Your task to perform on an android device: Is it going to rain this weekend? Image 0: 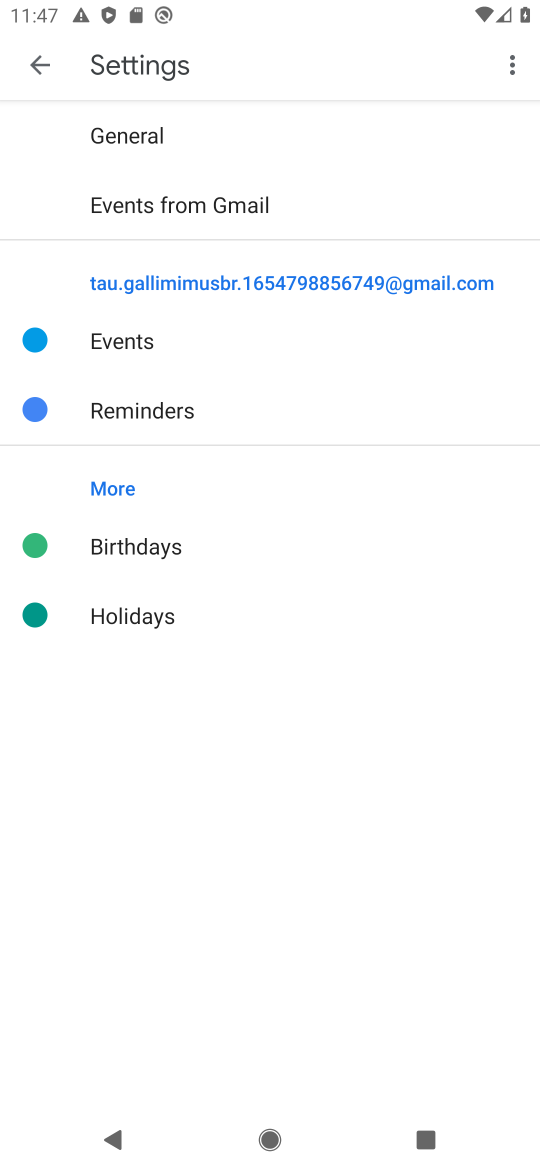
Step 0: press home button
Your task to perform on an android device: Is it going to rain this weekend? Image 1: 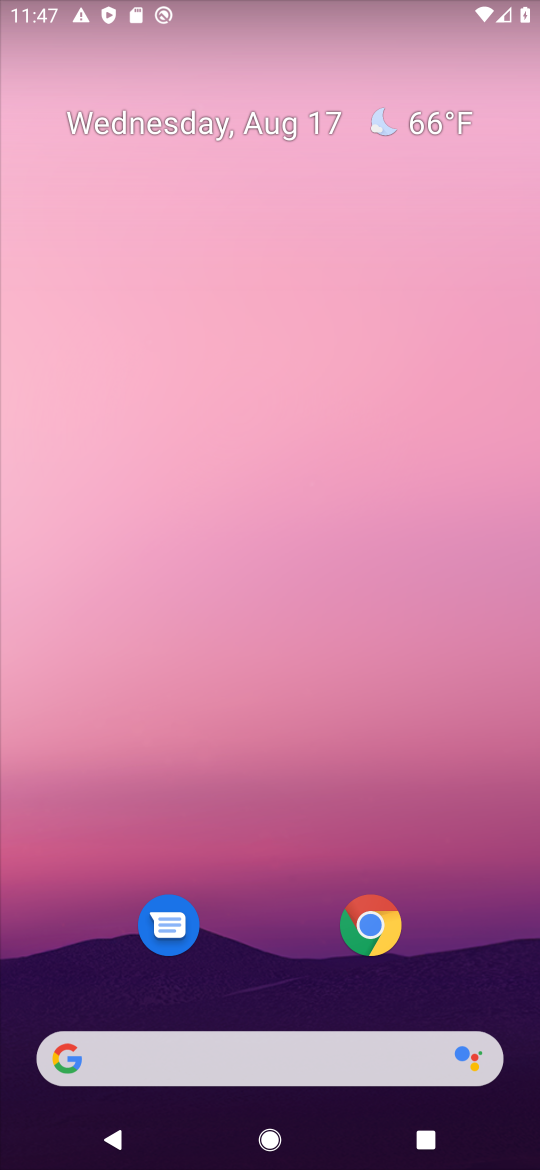
Step 1: click (443, 120)
Your task to perform on an android device: Is it going to rain this weekend? Image 2: 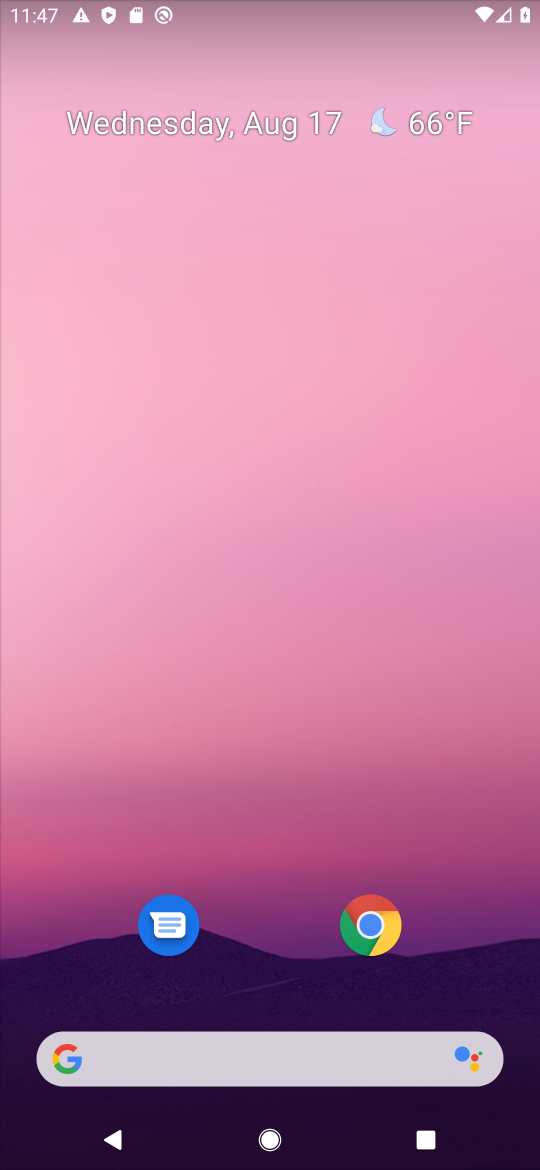
Step 2: click (439, 131)
Your task to perform on an android device: Is it going to rain this weekend? Image 3: 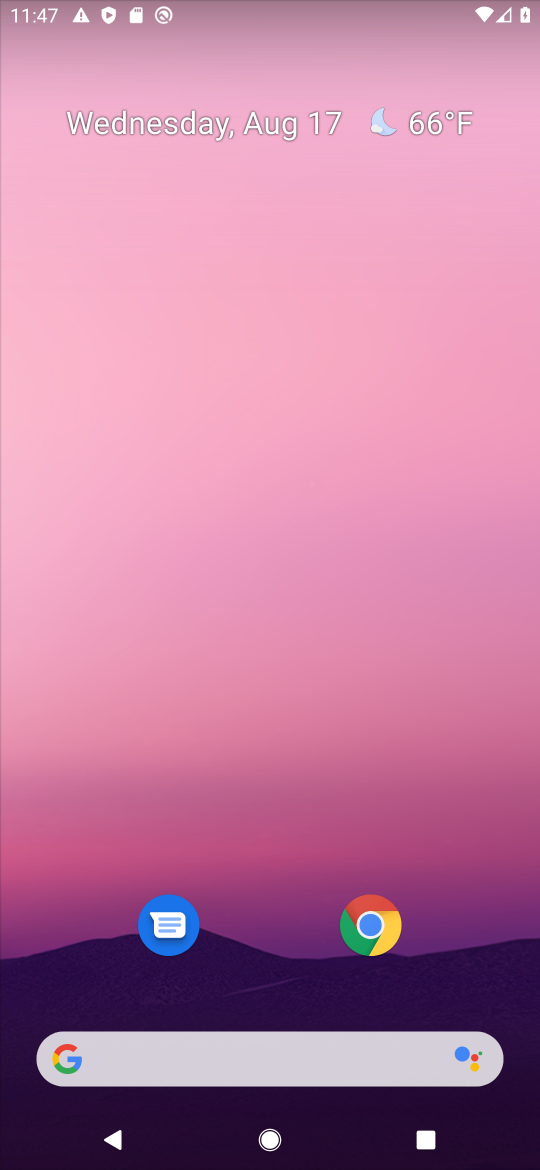
Step 3: click (439, 127)
Your task to perform on an android device: Is it going to rain this weekend? Image 4: 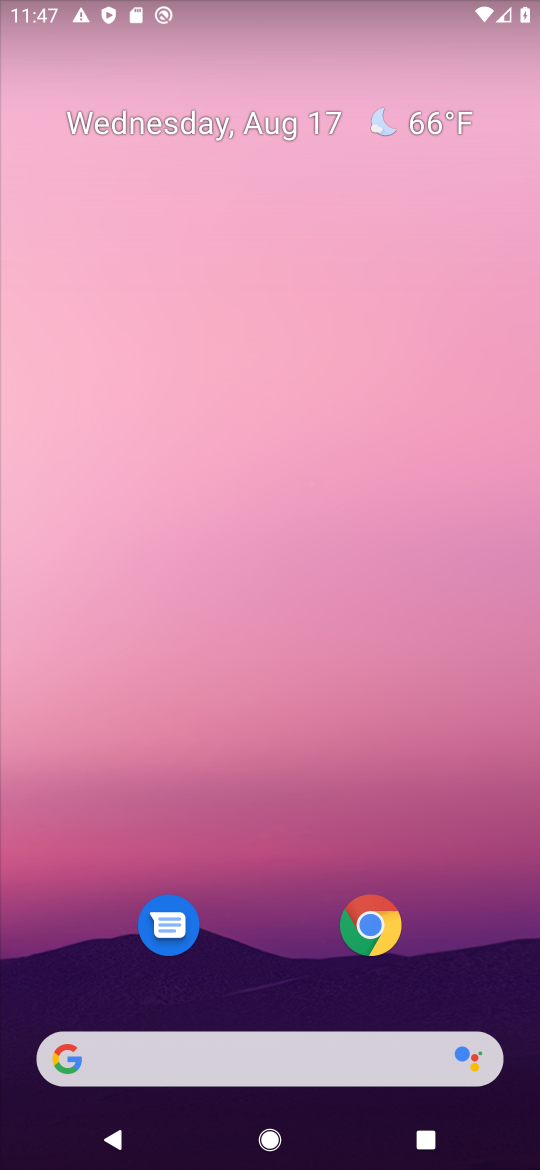
Step 4: click (416, 131)
Your task to perform on an android device: Is it going to rain this weekend? Image 5: 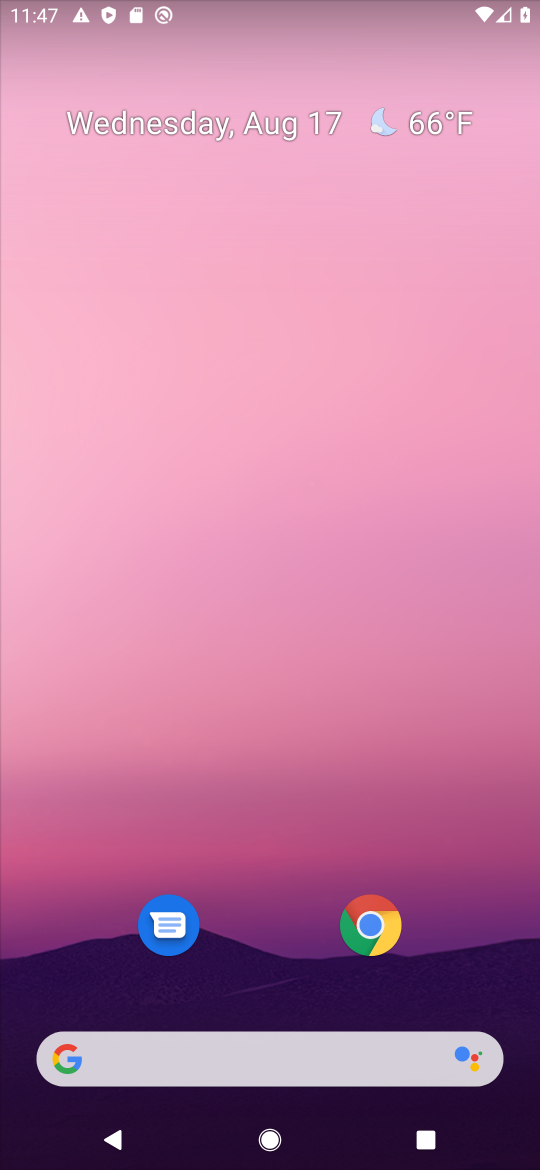
Step 5: click (420, 131)
Your task to perform on an android device: Is it going to rain this weekend? Image 6: 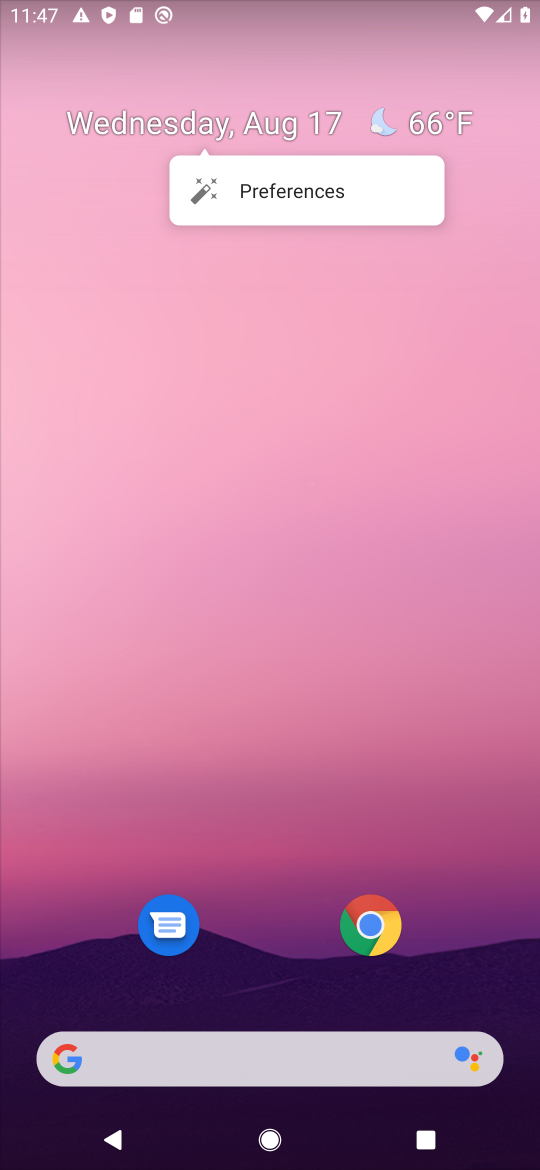
Step 6: click (409, 119)
Your task to perform on an android device: Is it going to rain this weekend? Image 7: 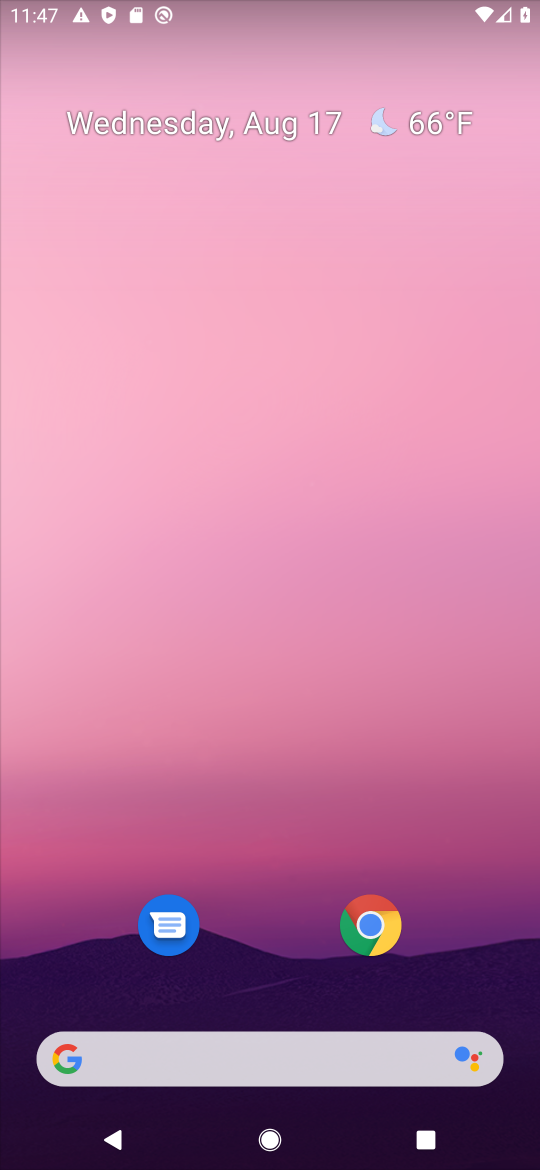
Step 7: click (116, 572)
Your task to perform on an android device: Is it going to rain this weekend? Image 8: 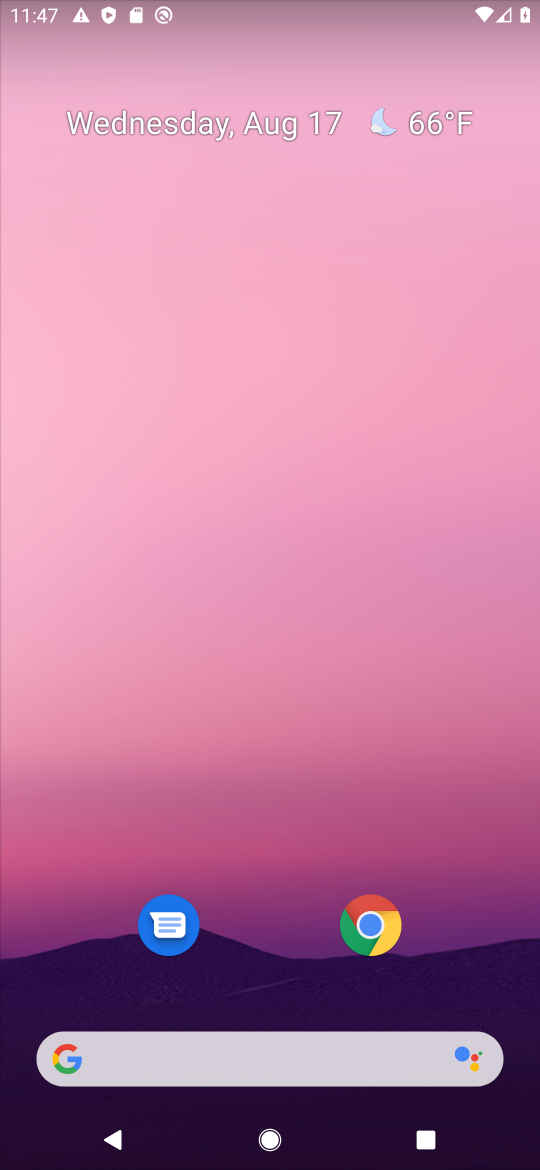
Step 8: click (431, 137)
Your task to perform on an android device: Is it going to rain this weekend? Image 9: 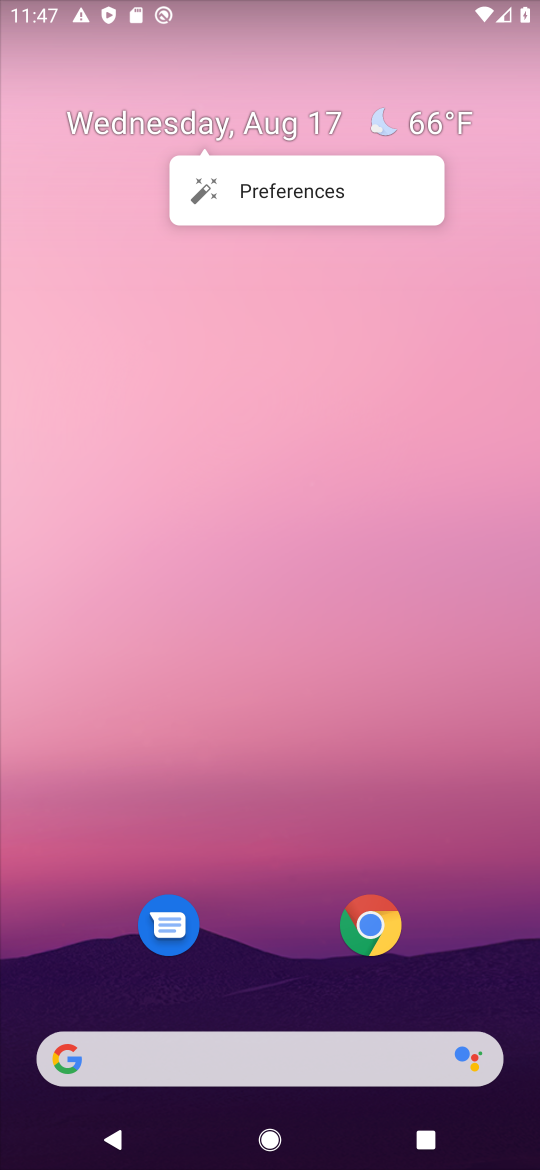
Step 9: click (414, 134)
Your task to perform on an android device: Is it going to rain this weekend? Image 10: 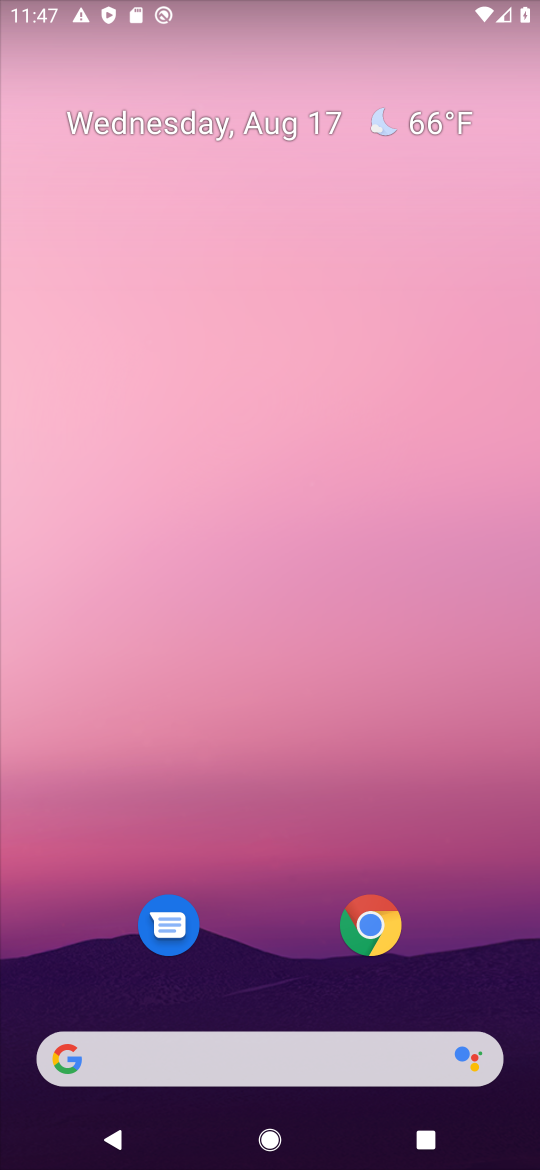
Step 10: click (435, 120)
Your task to perform on an android device: Is it going to rain this weekend? Image 11: 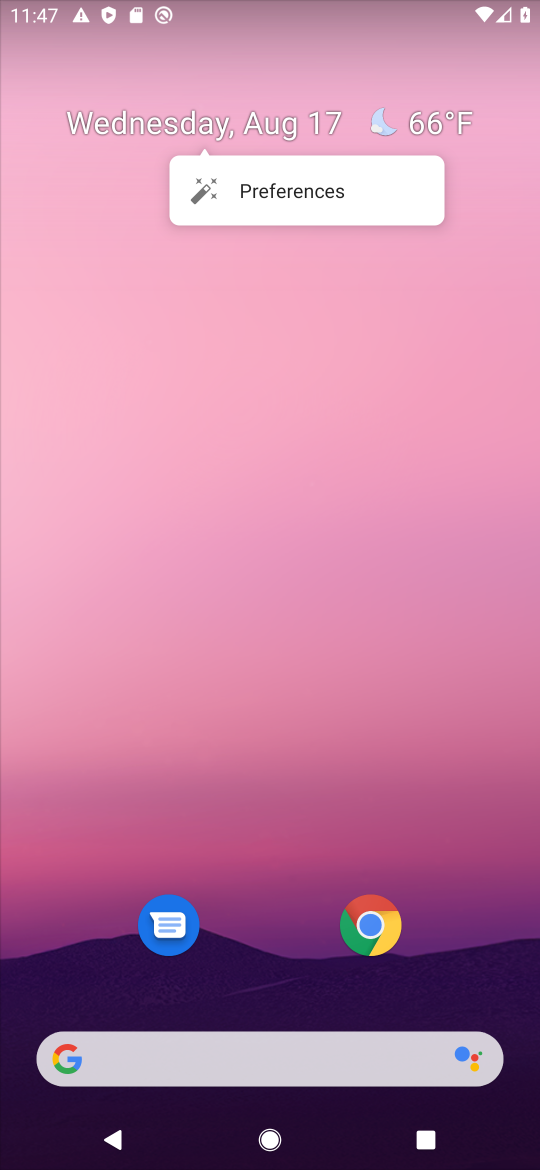
Step 11: click (446, 120)
Your task to perform on an android device: Is it going to rain this weekend? Image 12: 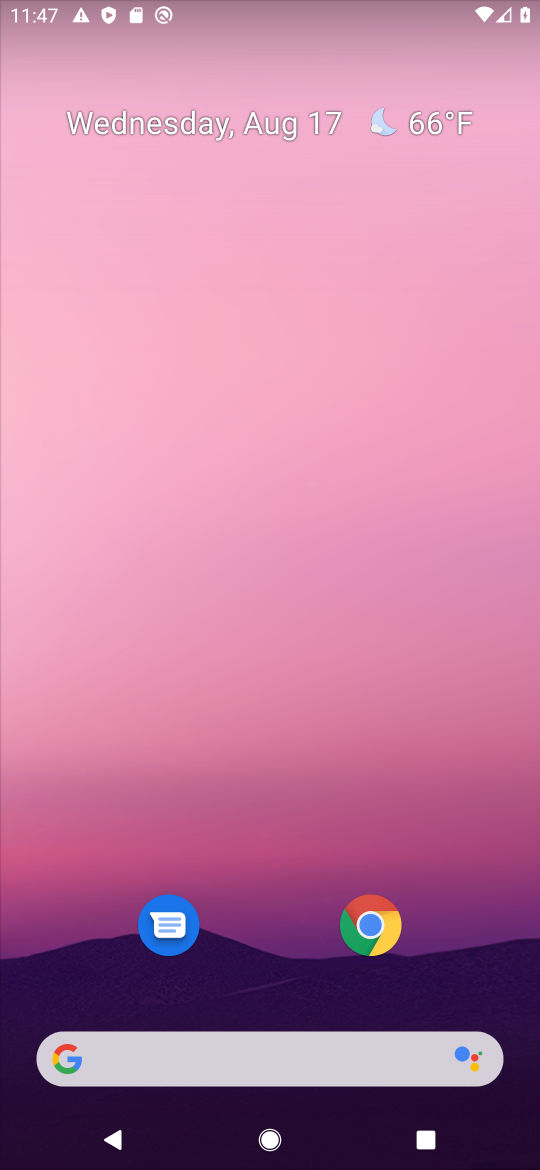
Step 12: click (471, 124)
Your task to perform on an android device: Is it going to rain this weekend? Image 13: 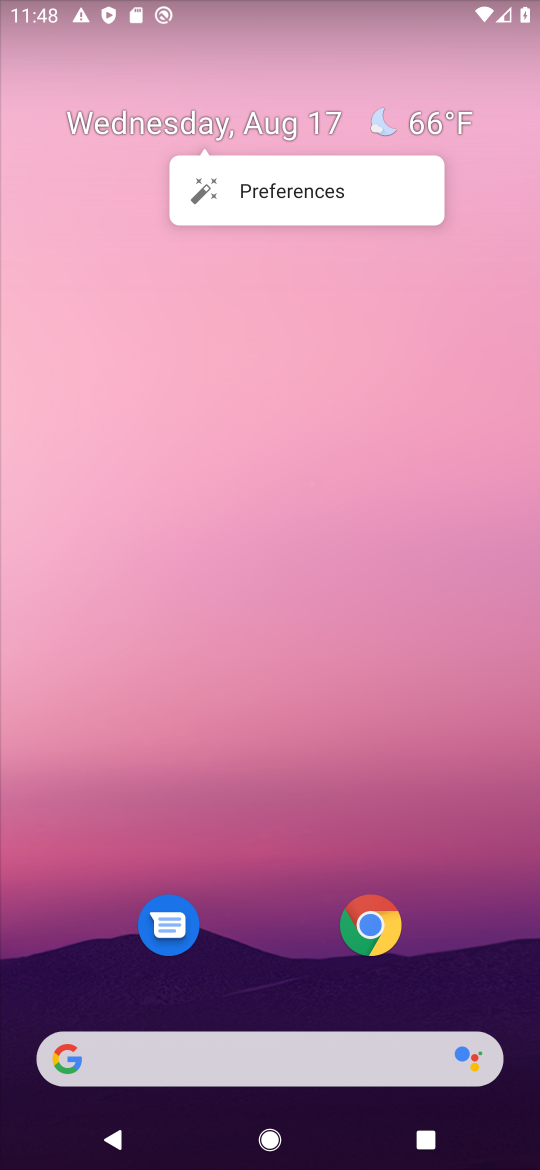
Step 13: click (471, 124)
Your task to perform on an android device: Is it going to rain this weekend? Image 14: 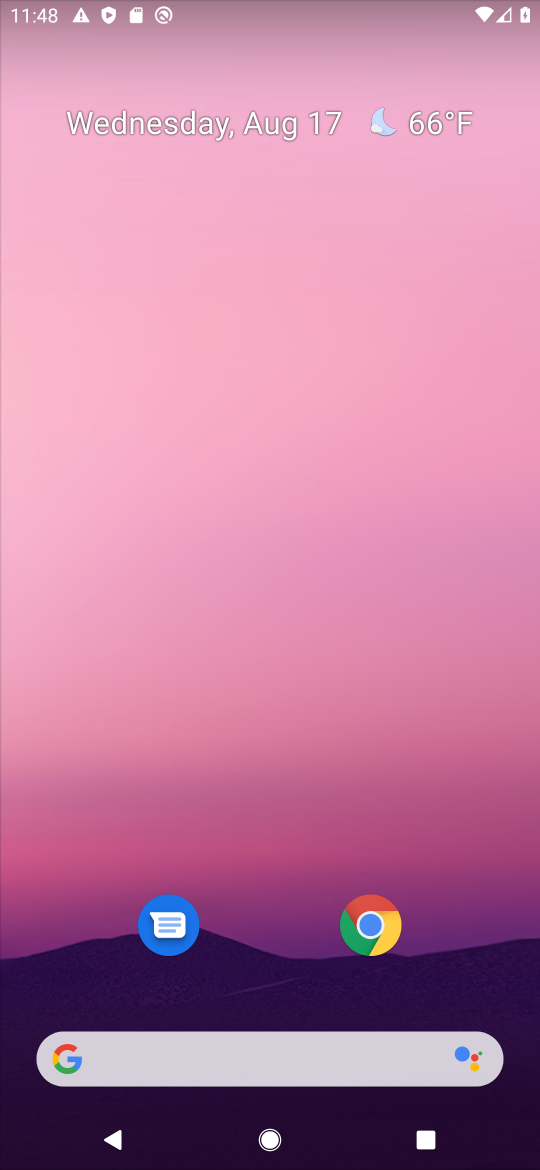
Step 14: click (471, 124)
Your task to perform on an android device: Is it going to rain this weekend? Image 15: 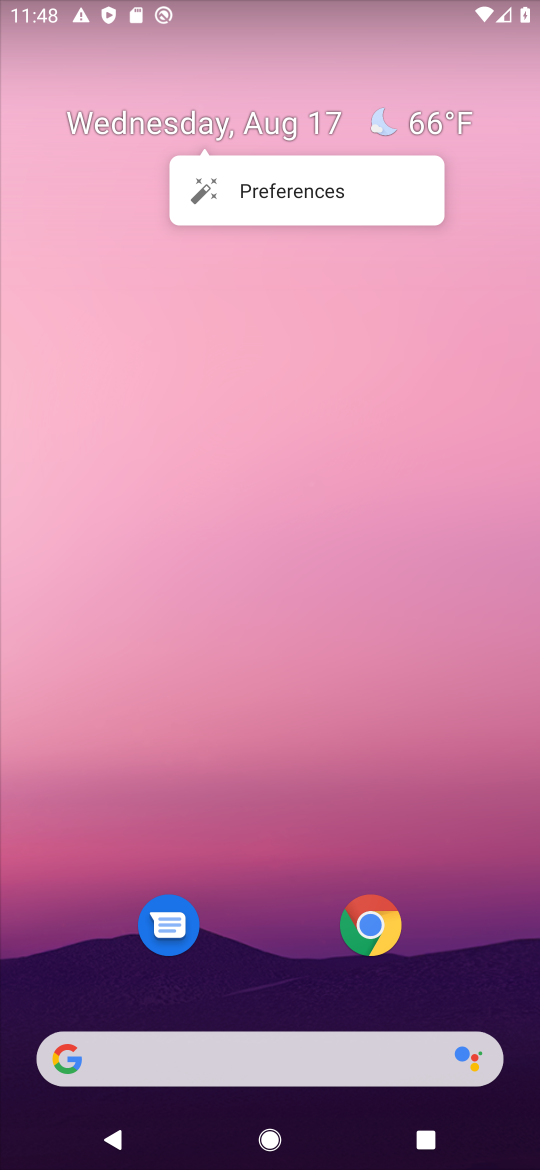
Step 15: click (455, 116)
Your task to perform on an android device: Is it going to rain this weekend? Image 16: 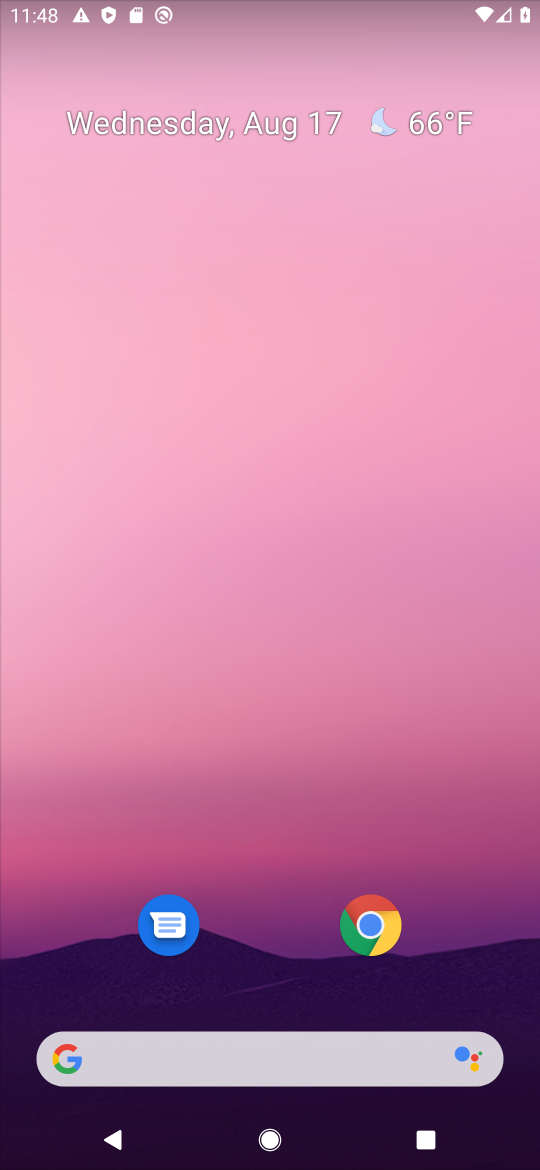
Step 16: click (455, 116)
Your task to perform on an android device: Is it going to rain this weekend? Image 17: 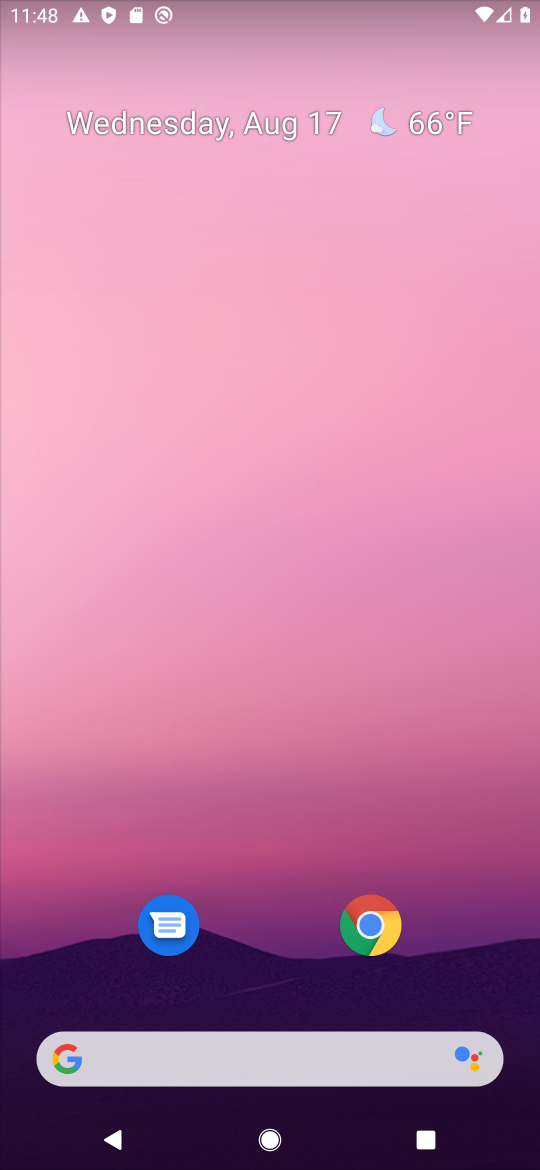
Step 17: click (434, 490)
Your task to perform on an android device: Is it going to rain this weekend? Image 18: 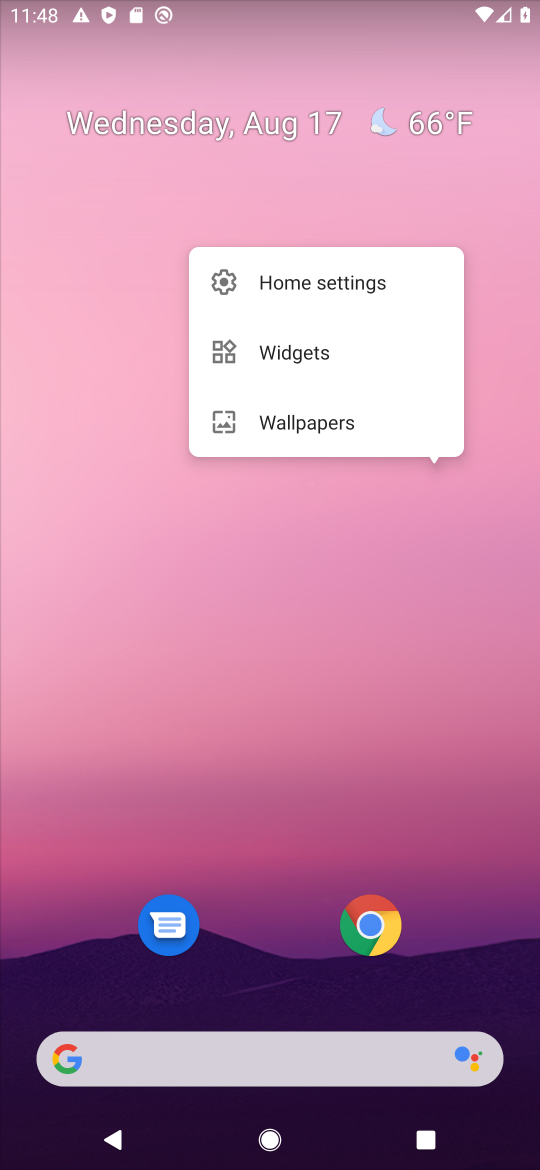
Step 18: click (414, 133)
Your task to perform on an android device: Is it going to rain this weekend? Image 19: 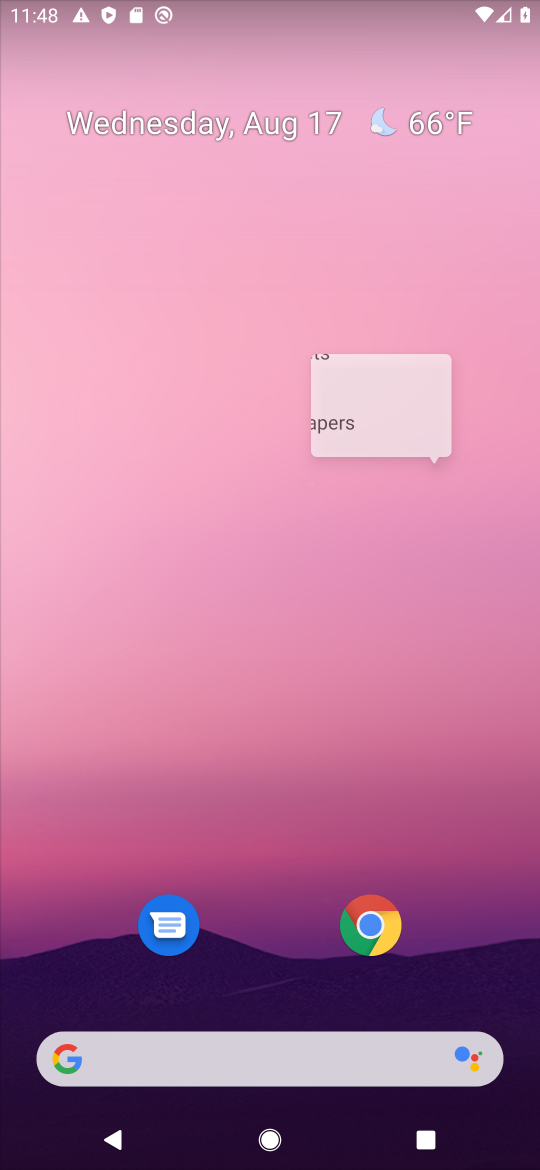
Step 19: click (414, 133)
Your task to perform on an android device: Is it going to rain this weekend? Image 20: 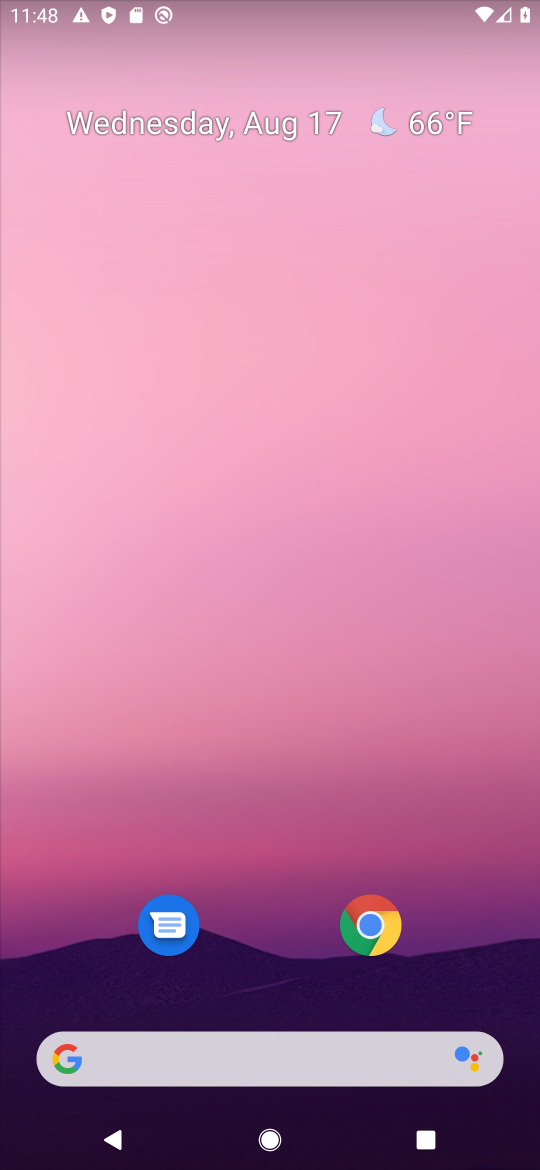
Step 20: click (458, 105)
Your task to perform on an android device: Is it going to rain this weekend? Image 21: 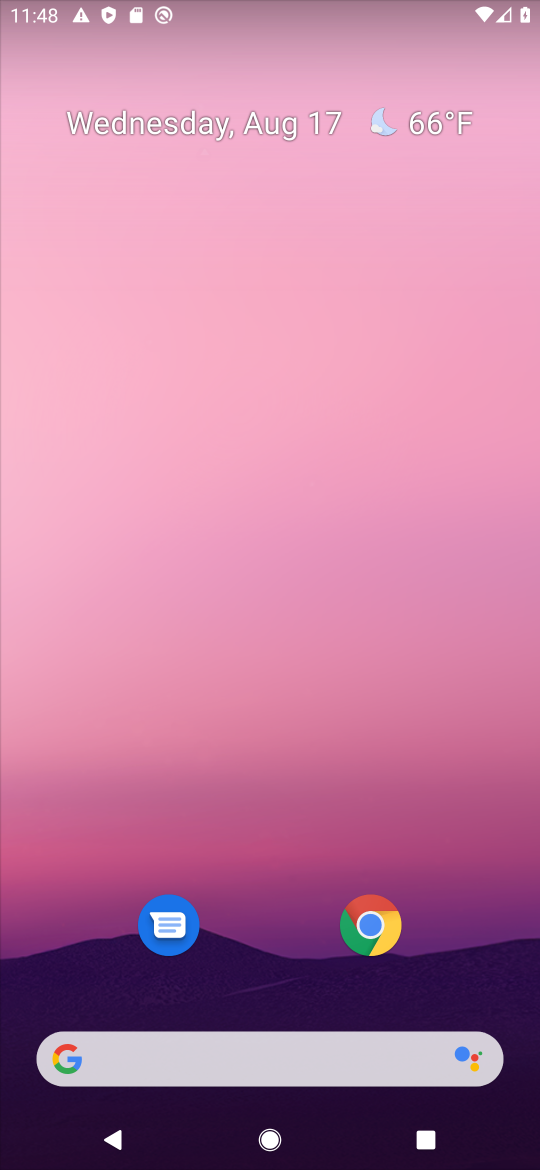
Step 21: click (451, 113)
Your task to perform on an android device: Is it going to rain this weekend? Image 22: 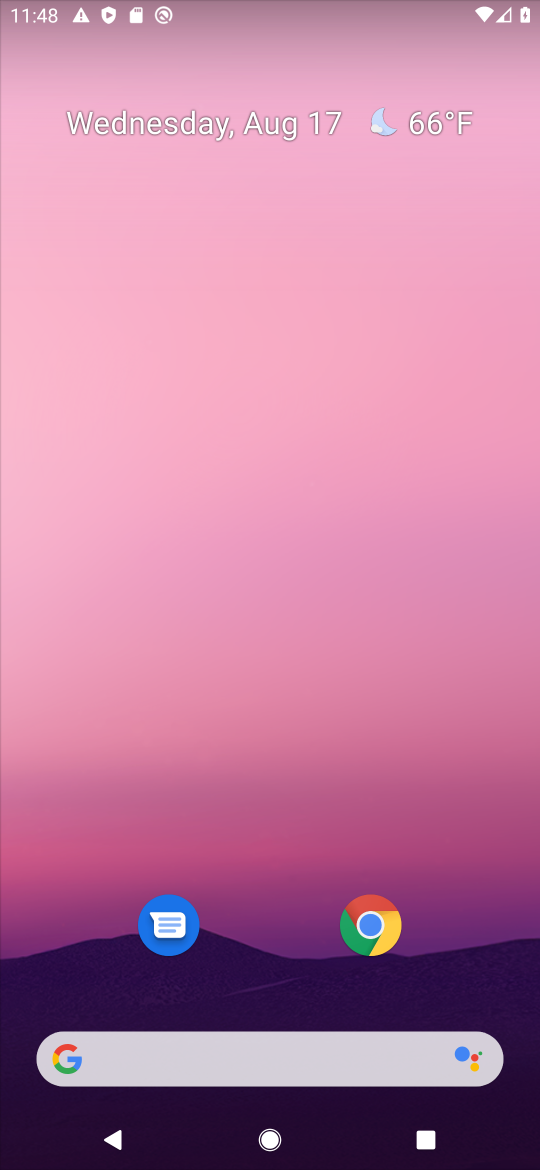
Step 22: click (388, 937)
Your task to perform on an android device: Is it going to rain this weekend? Image 23: 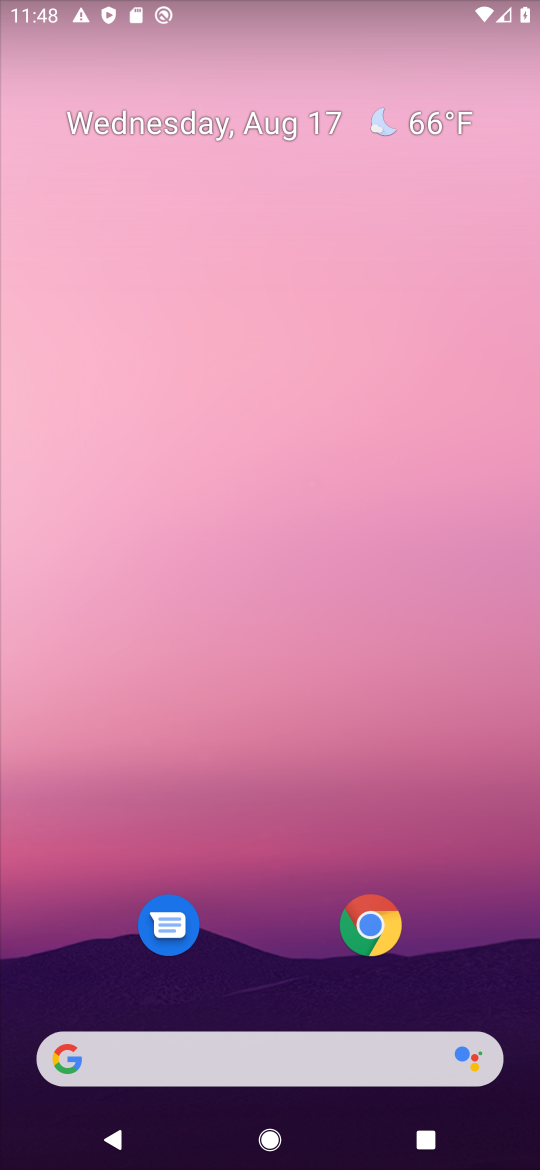
Step 23: click (375, 909)
Your task to perform on an android device: Is it going to rain this weekend? Image 24: 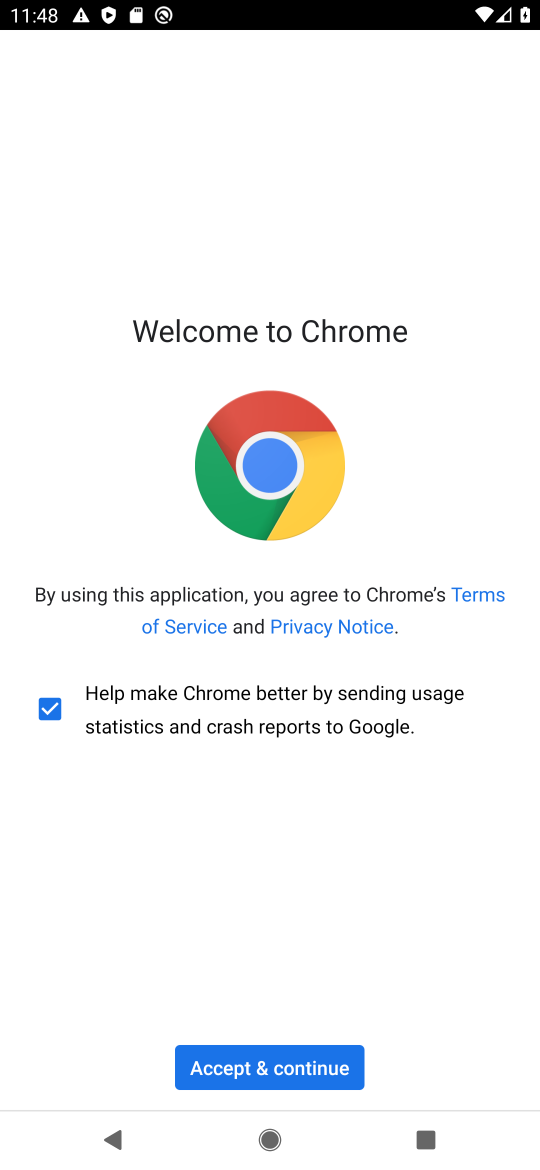
Step 24: click (278, 1072)
Your task to perform on an android device: Is it going to rain this weekend? Image 25: 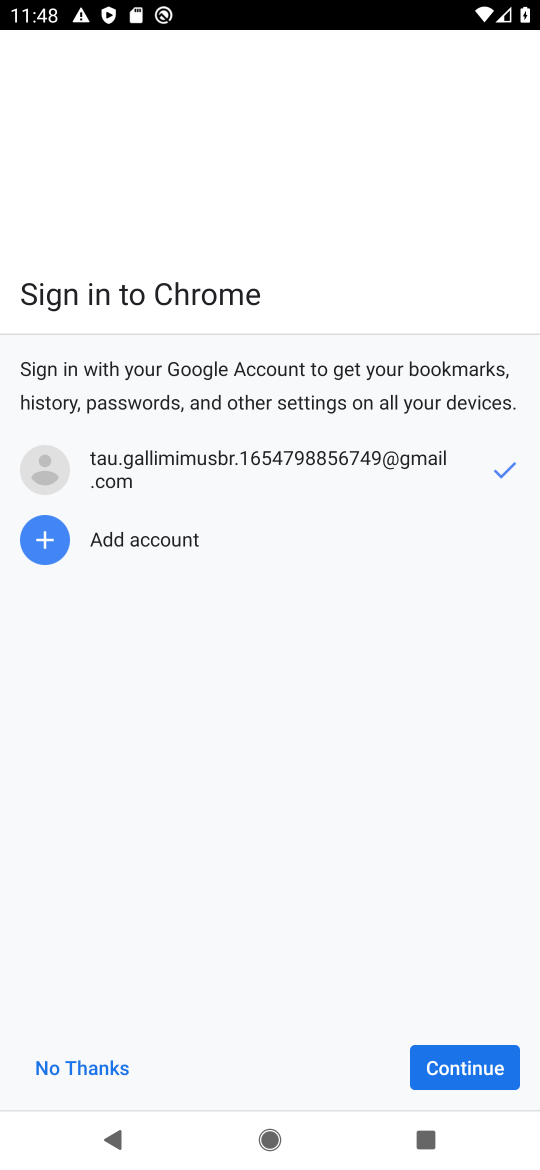
Step 25: click (477, 1066)
Your task to perform on an android device: Is it going to rain this weekend? Image 26: 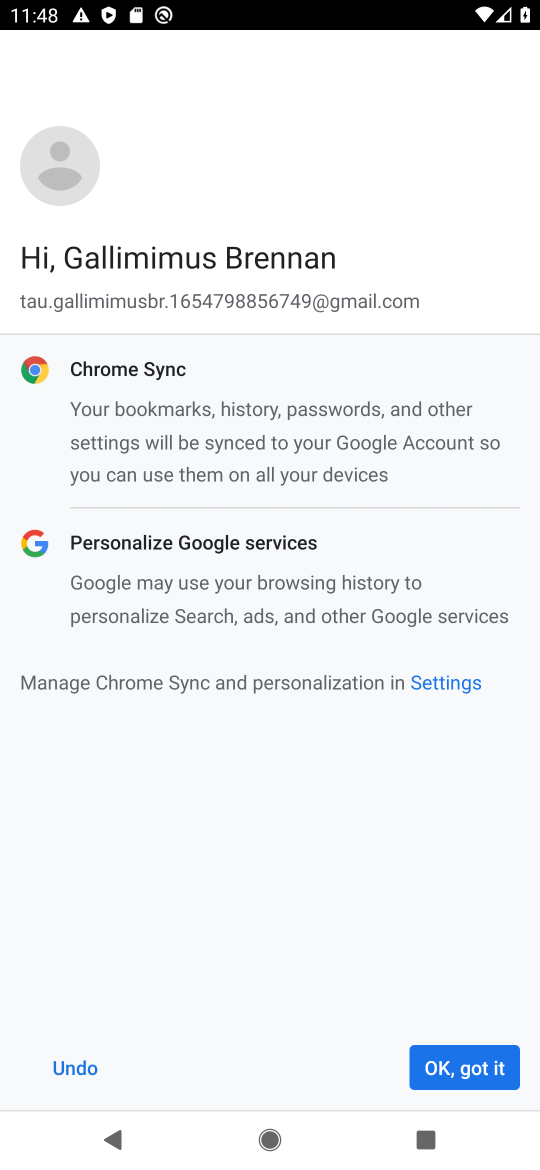
Step 26: click (462, 1052)
Your task to perform on an android device: Is it going to rain this weekend? Image 27: 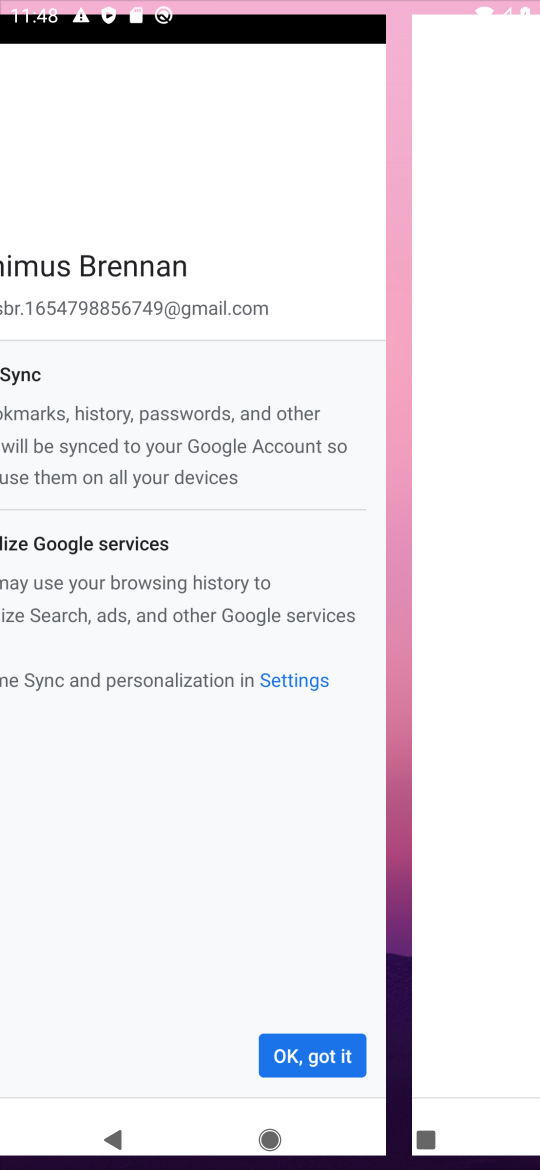
Step 27: click (463, 1059)
Your task to perform on an android device: Is it going to rain this weekend? Image 28: 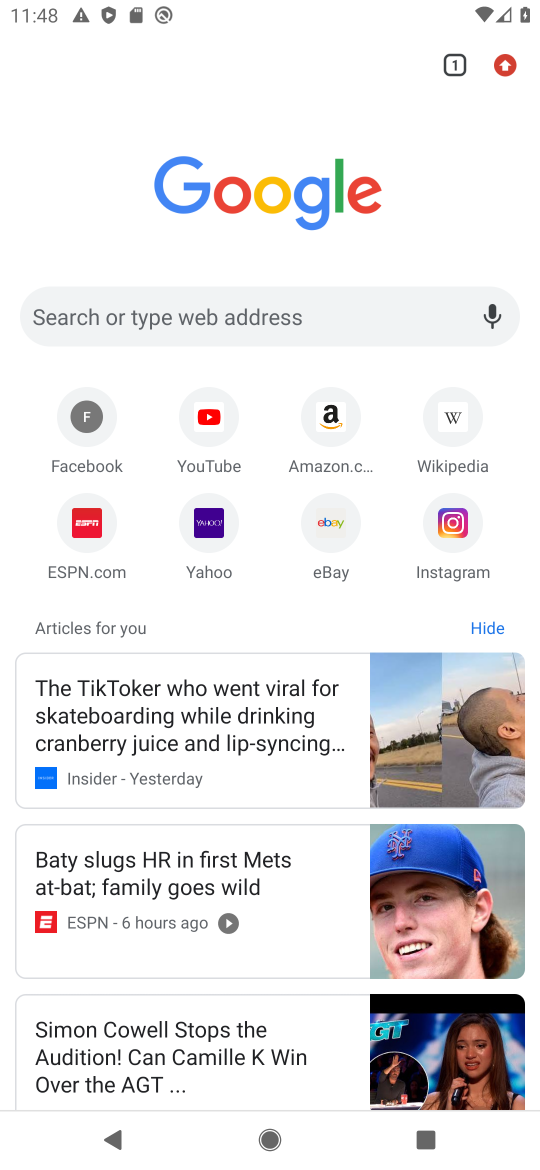
Step 28: click (334, 318)
Your task to perform on an android device: Is it going to rain this weekend? Image 29: 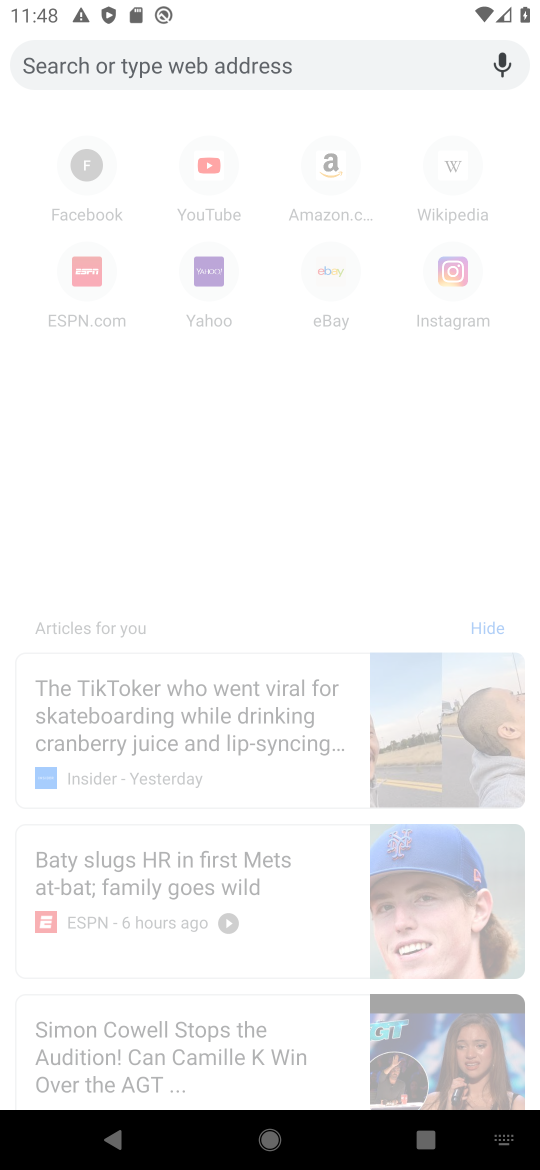
Step 29: type "weather"
Your task to perform on an android device: Is it going to rain this weekend? Image 30: 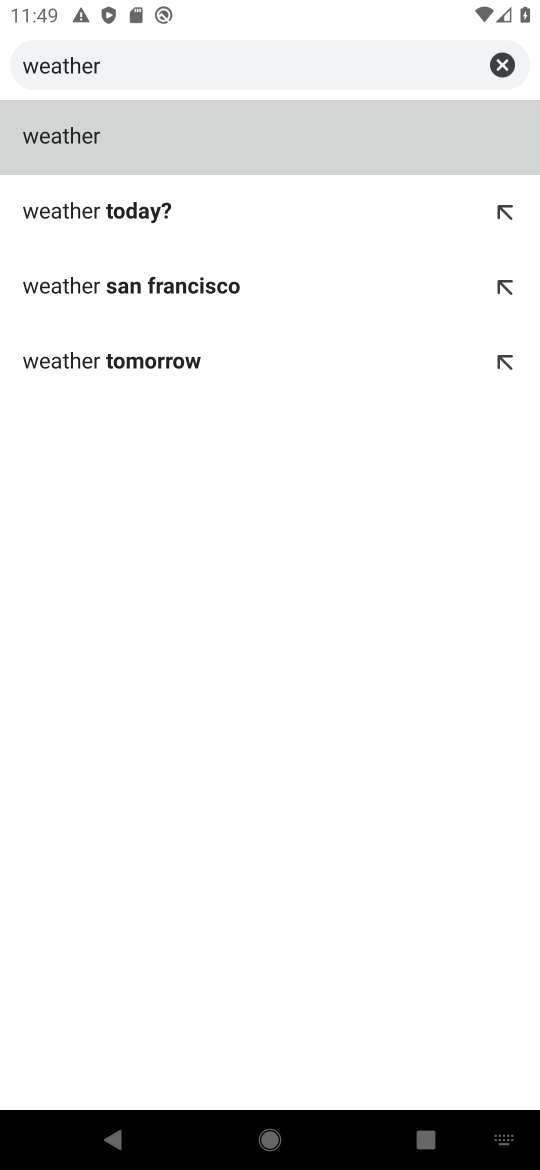
Step 30: click (58, 128)
Your task to perform on an android device: Is it going to rain this weekend? Image 31: 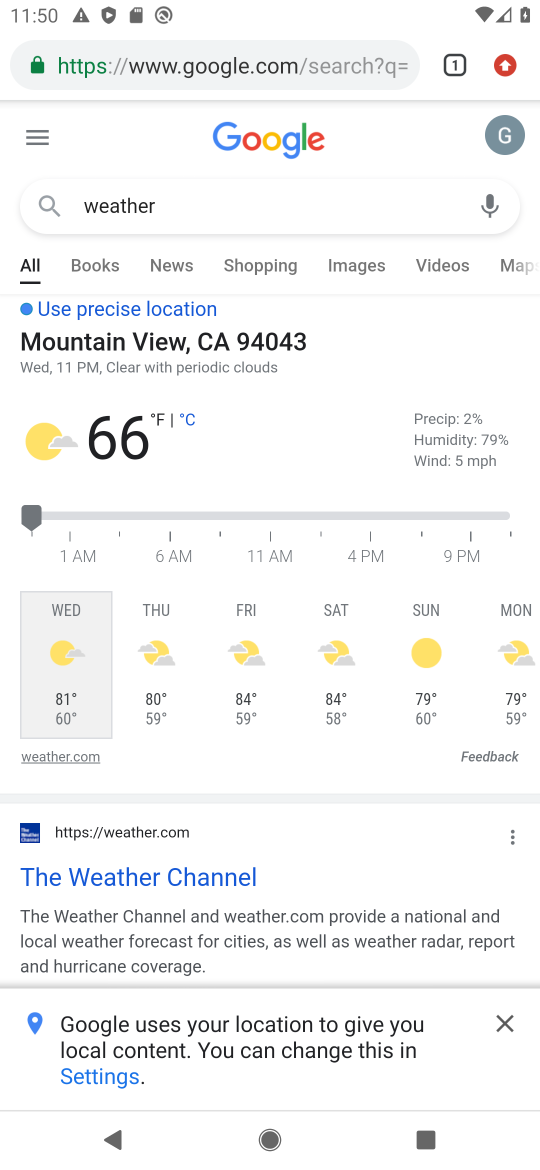
Step 31: click (423, 661)
Your task to perform on an android device: Is it going to rain this weekend? Image 32: 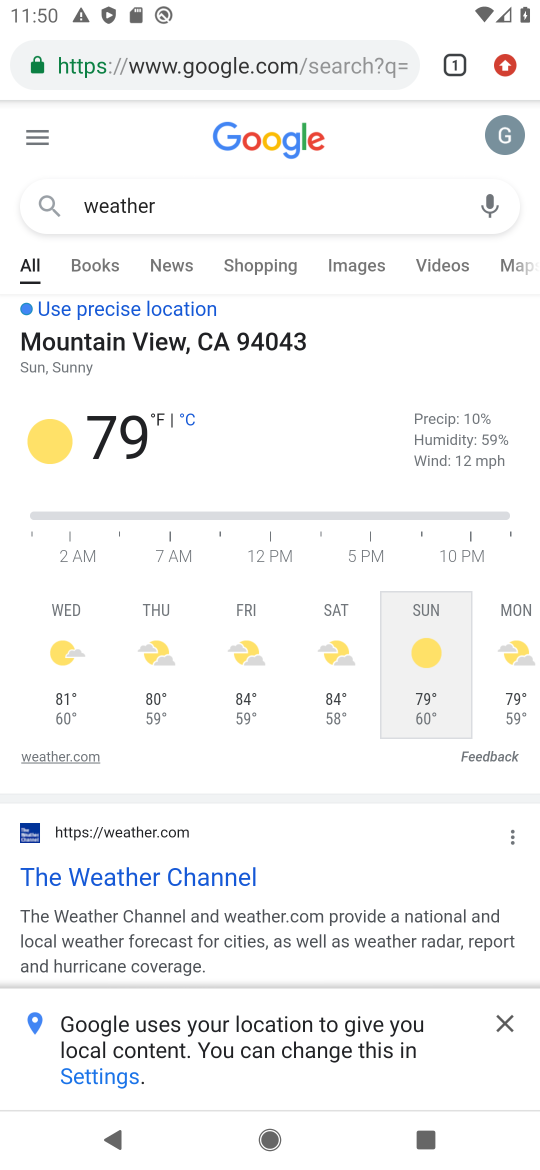
Step 32: click (339, 653)
Your task to perform on an android device: Is it going to rain this weekend? Image 33: 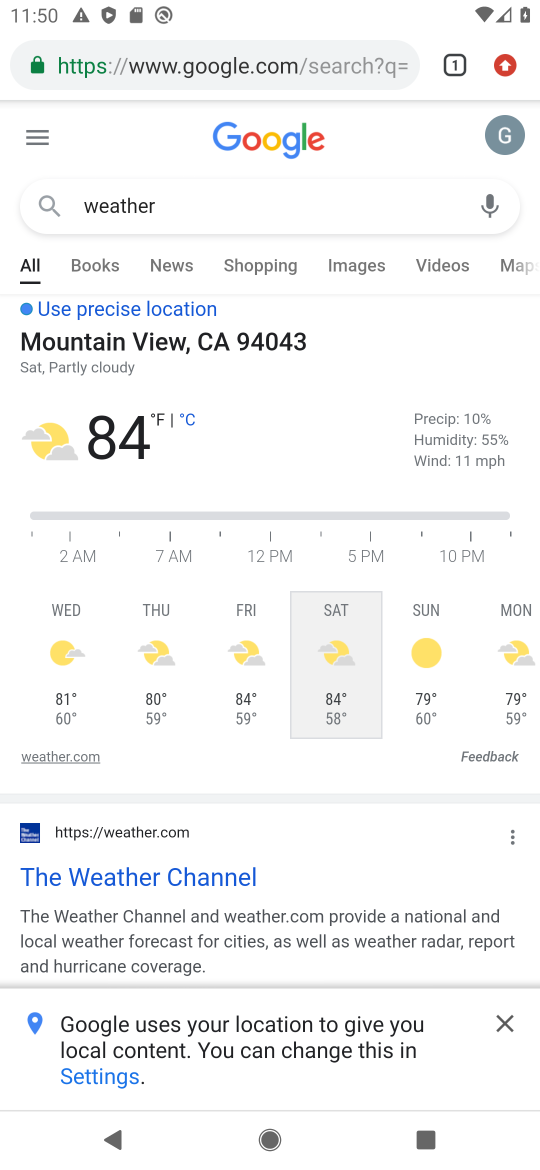
Step 33: task complete